Your task to perform on an android device: see sites visited before in the chrome app Image 0: 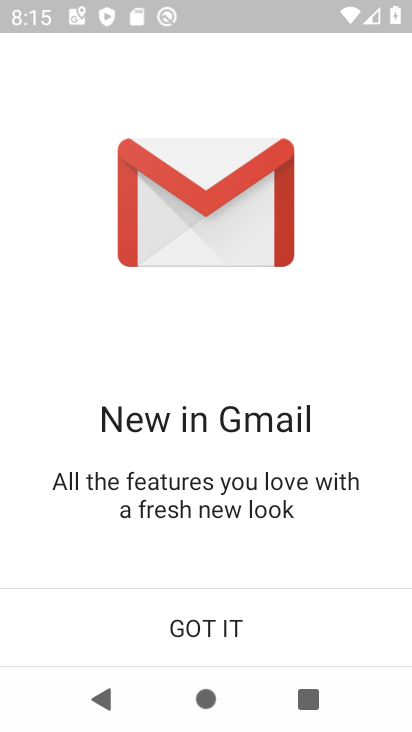
Step 0: press home button
Your task to perform on an android device: see sites visited before in the chrome app Image 1: 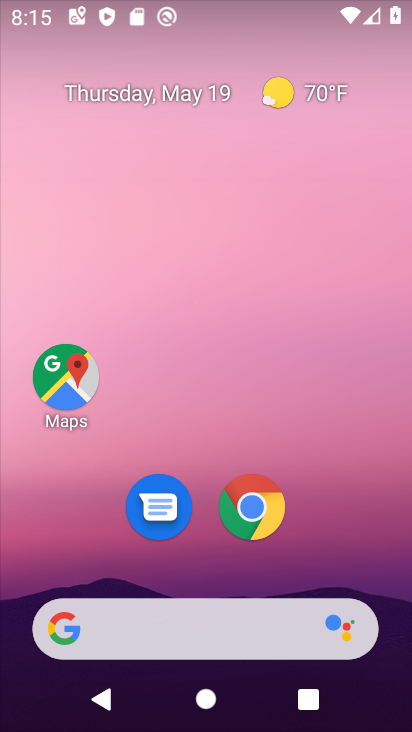
Step 1: click (240, 489)
Your task to perform on an android device: see sites visited before in the chrome app Image 2: 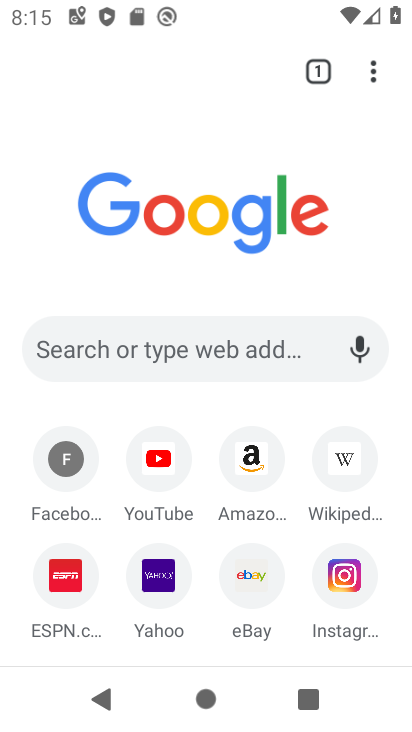
Step 2: task complete